Your task to perform on an android device: check android version Image 0: 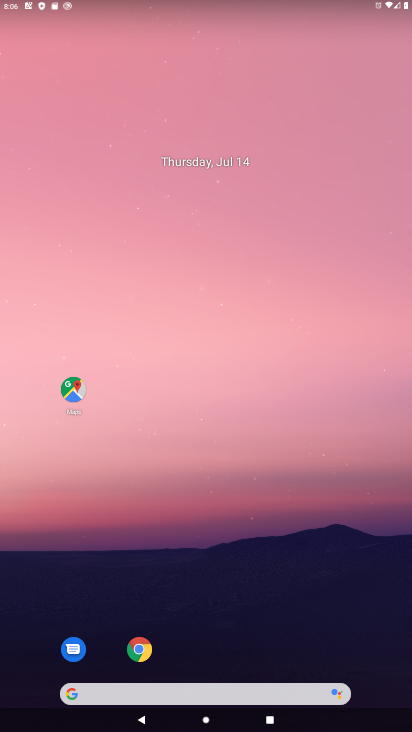
Step 0: press home button
Your task to perform on an android device: check android version Image 1: 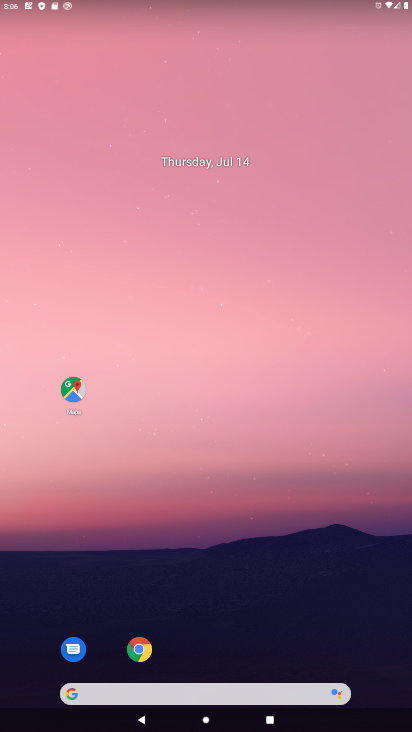
Step 1: drag from (216, 660) to (235, 125)
Your task to perform on an android device: check android version Image 2: 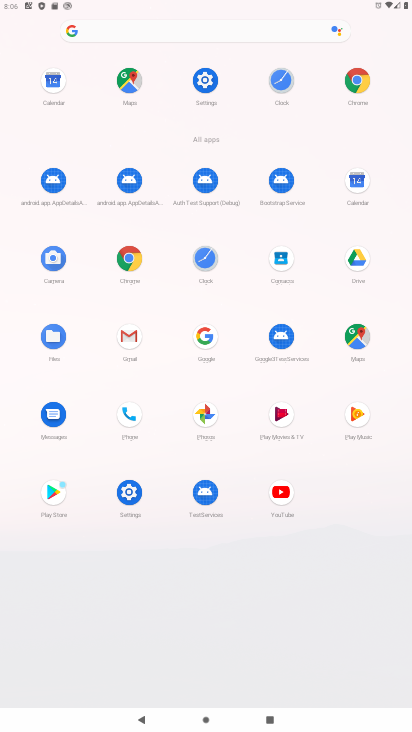
Step 2: click (202, 75)
Your task to perform on an android device: check android version Image 3: 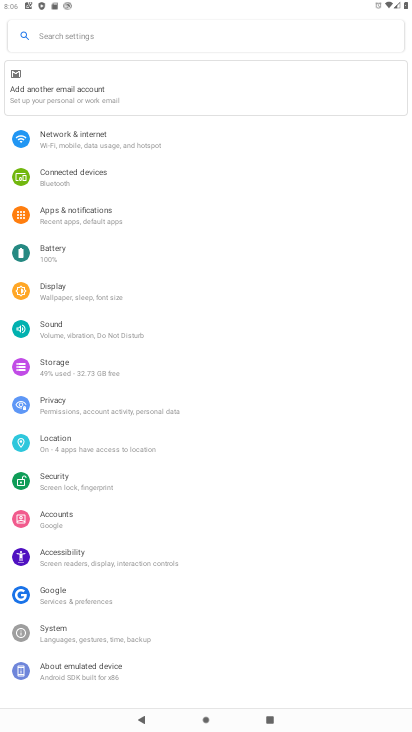
Step 3: click (130, 672)
Your task to perform on an android device: check android version Image 4: 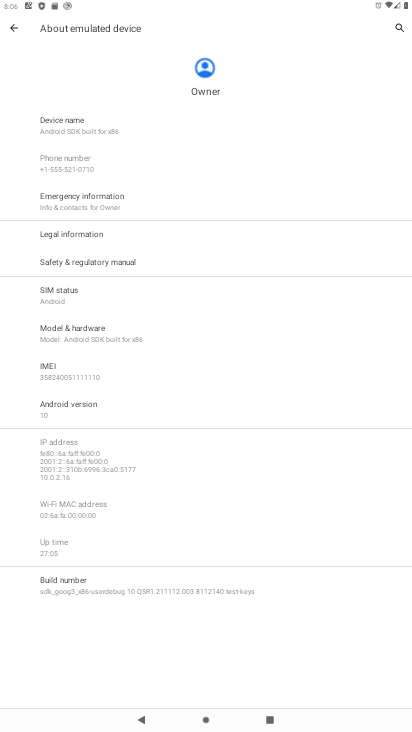
Step 4: click (89, 407)
Your task to perform on an android device: check android version Image 5: 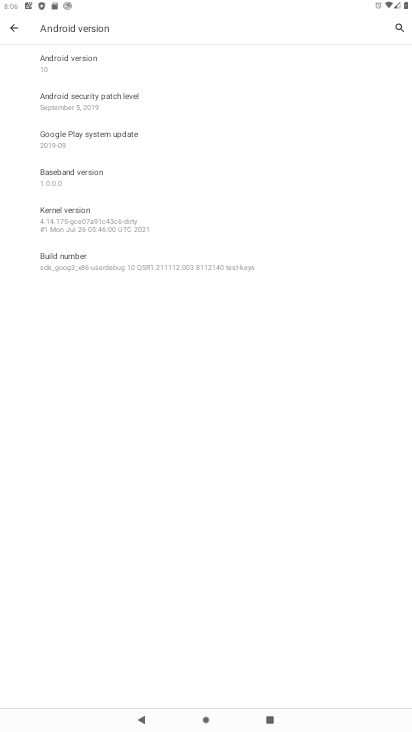
Step 5: click (92, 59)
Your task to perform on an android device: check android version Image 6: 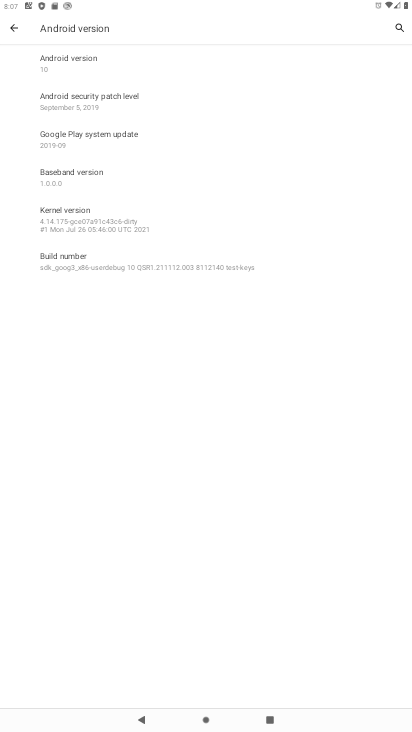
Step 6: click (92, 59)
Your task to perform on an android device: check android version Image 7: 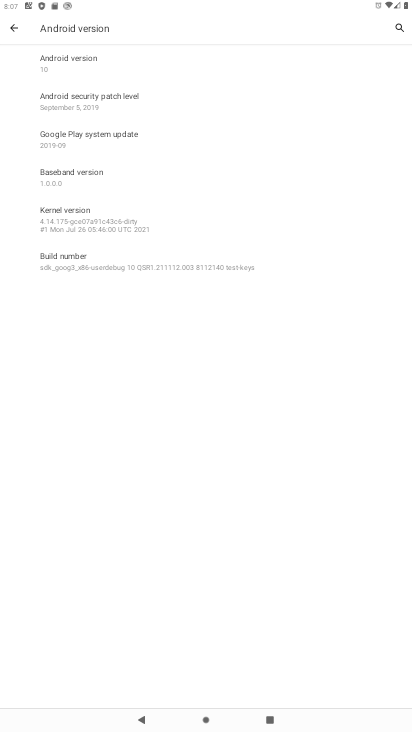
Step 7: task complete